Your task to perform on an android device: Open Youtube and go to "Your channel" Image 0: 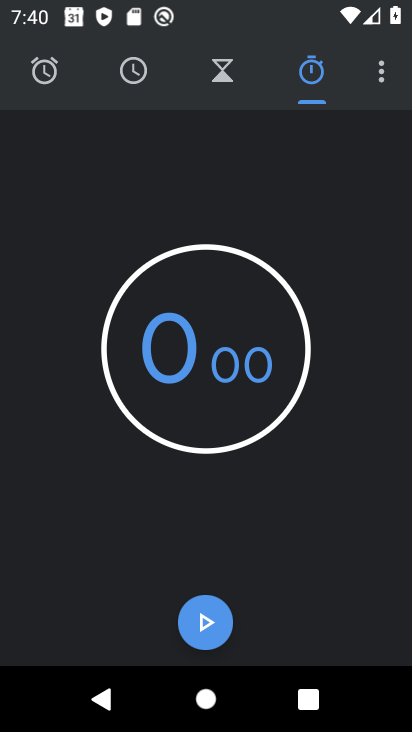
Step 0: press home button
Your task to perform on an android device: Open Youtube and go to "Your channel" Image 1: 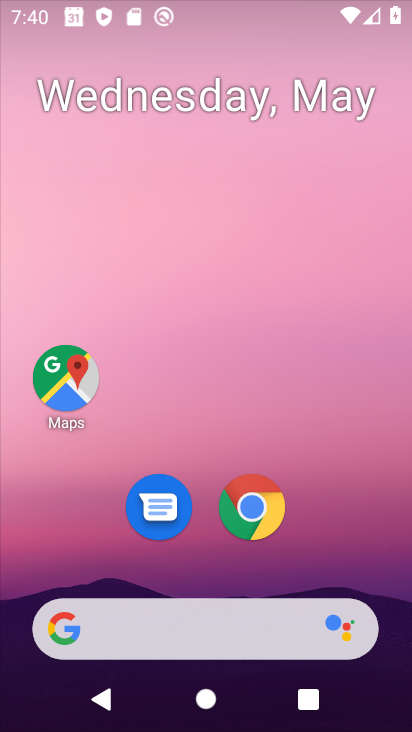
Step 1: drag from (331, 535) to (329, 207)
Your task to perform on an android device: Open Youtube and go to "Your channel" Image 2: 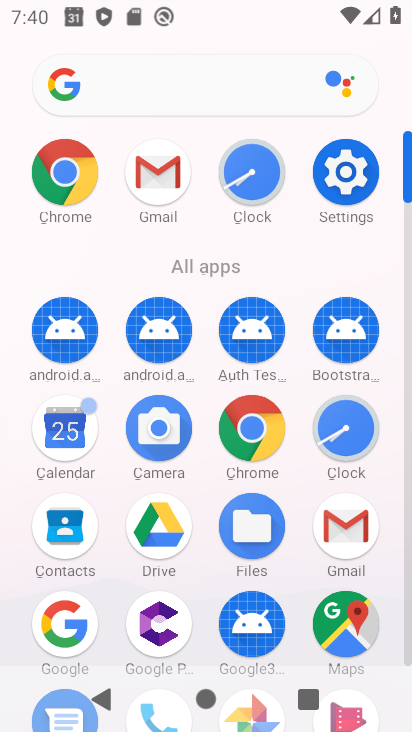
Step 2: drag from (283, 567) to (273, 265)
Your task to perform on an android device: Open Youtube and go to "Your channel" Image 3: 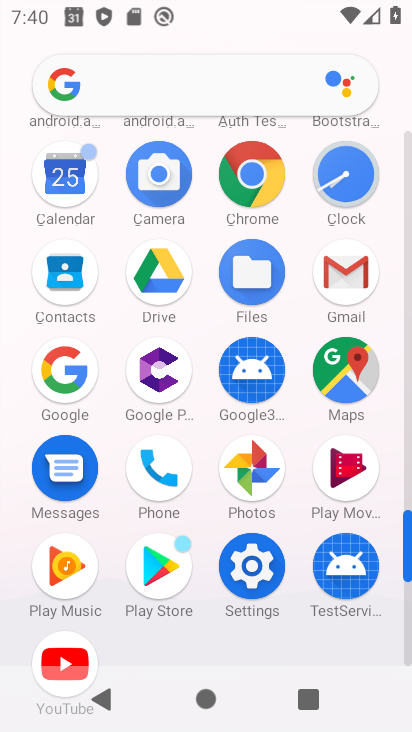
Step 3: click (74, 665)
Your task to perform on an android device: Open Youtube and go to "Your channel" Image 4: 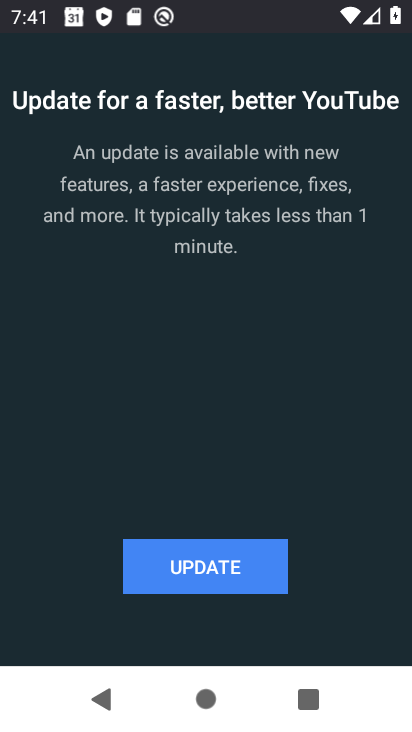
Step 4: task complete